Your task to perform on an android device: Open Amazon Image 0: 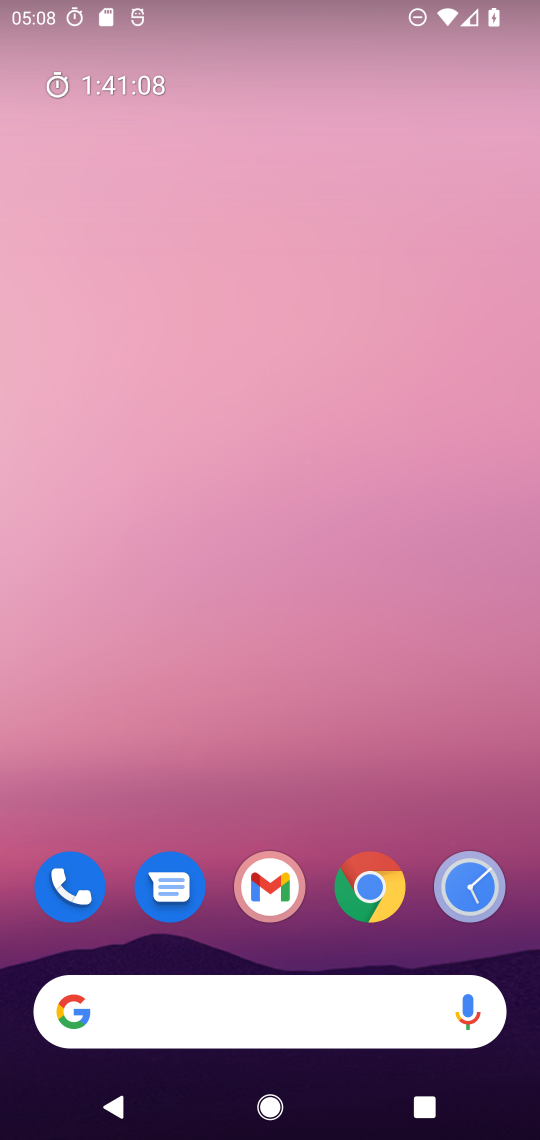
Step 0: press home button
Your task to perform on an android device: Open Amazon Image 1: 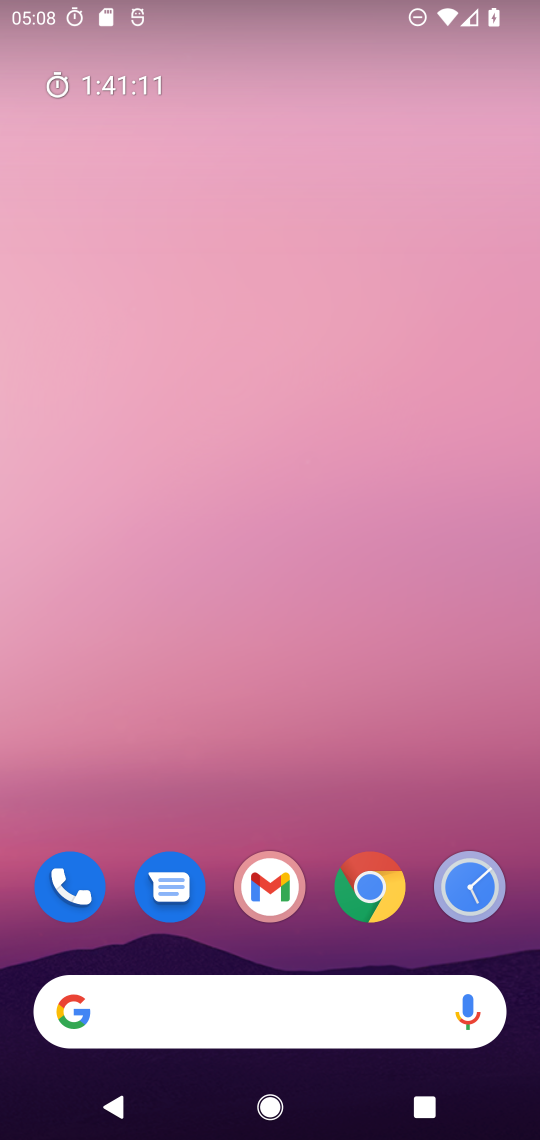
Step 1: drag from (407, 788) to (430, 205)
Your task to perform on an android device: Open Amazon Image 2: 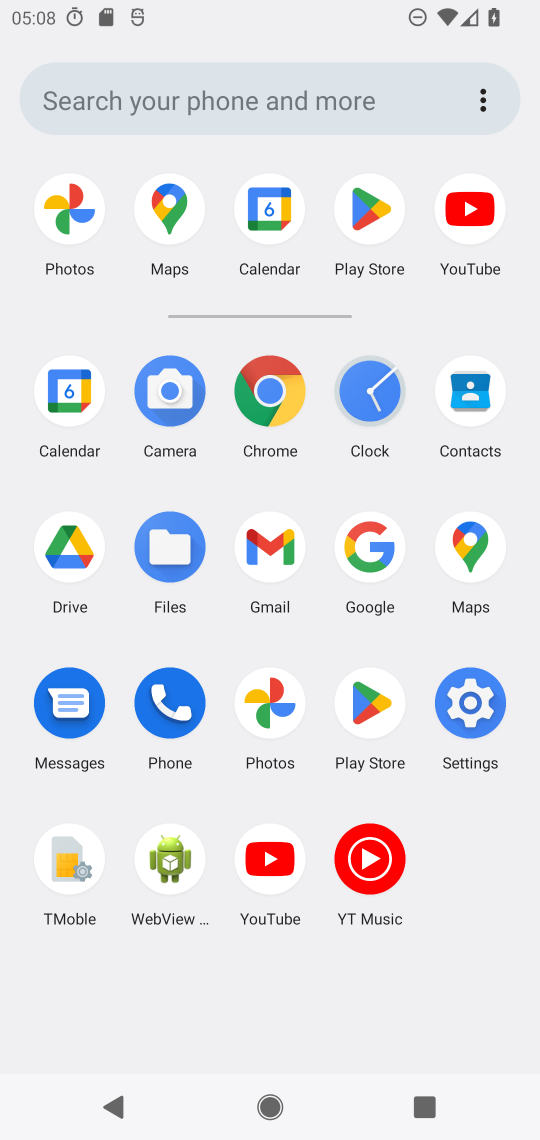
Step 2: click (273, 393)
Your task to perform on an android device: Open Amazon Image 3: 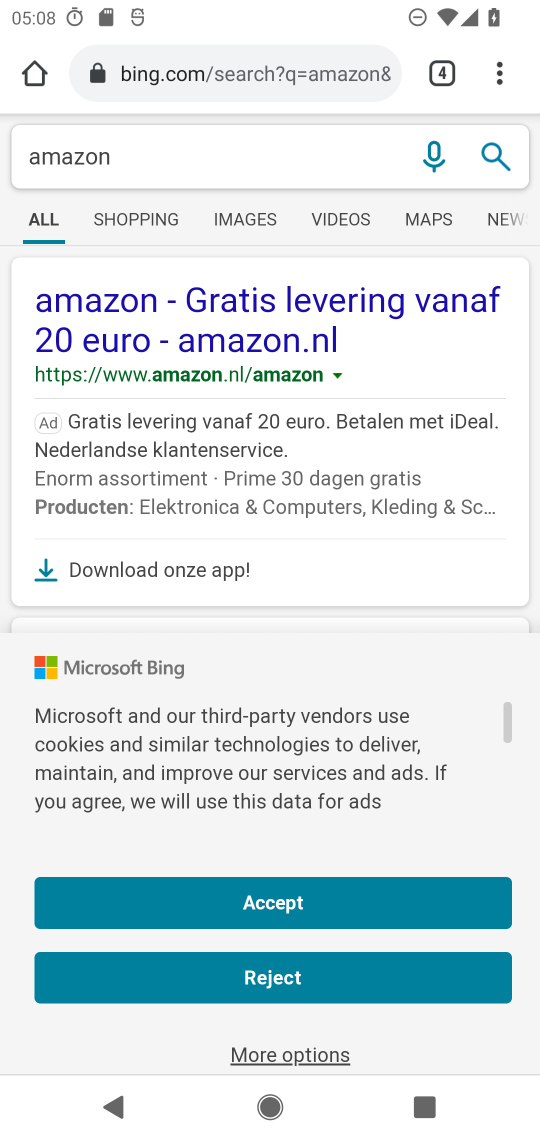
Step 3: task complete